Your task to perform on an android device: open chrome privacy settings Image 0: 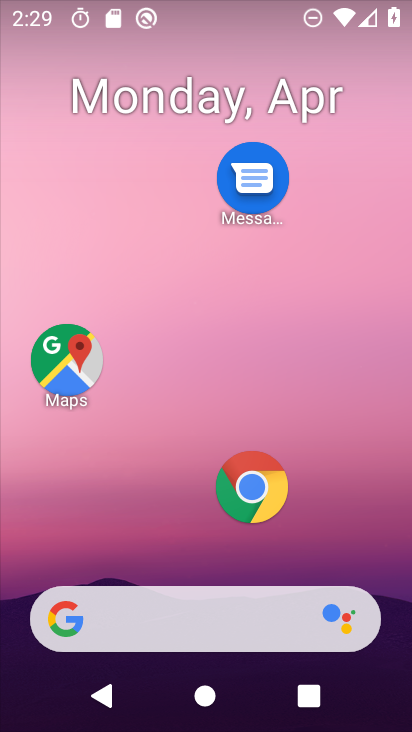
Step 0: drag from (272, 587) to (336, 14)
Your task to perform on an android device: open chrome privacy settings Image 1: 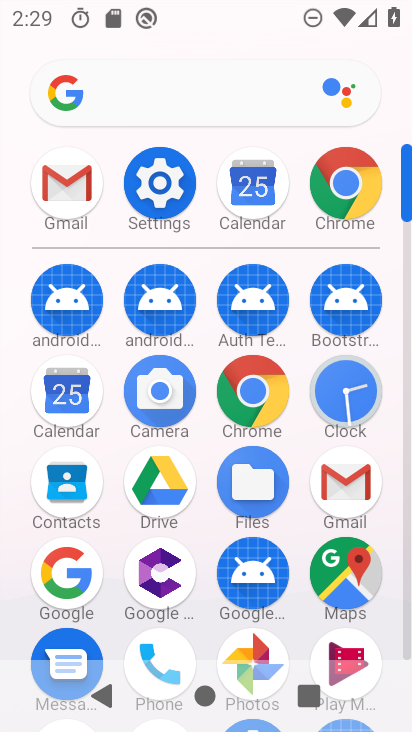
Step 1: drag from (291, 621) to (398, 105)
Your task to perform on an android device: open chrome privacy settings Image 2: 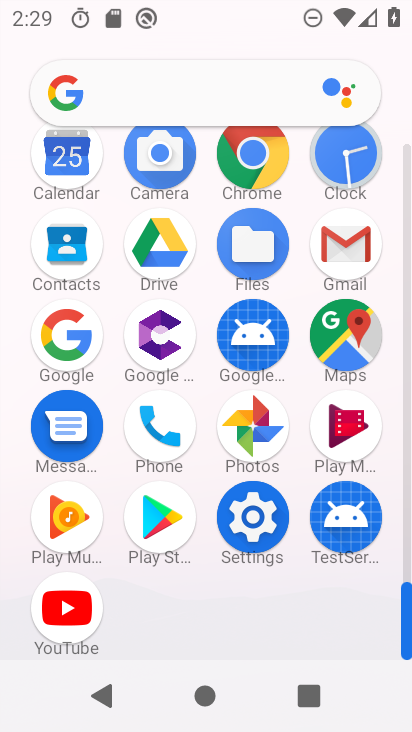
Step 2: click (260, 517)
Your task to perform on an android device: open chrome privacy settings Image 3: 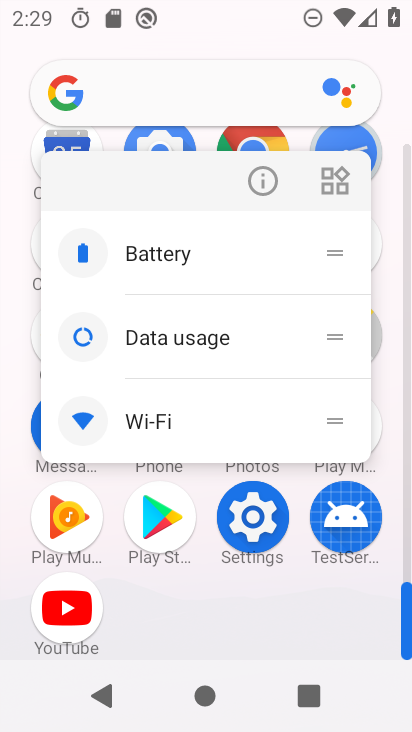
Step 3: click (257, 507)
Your task to perform on an android device: open chrome privacy settings Image 4: 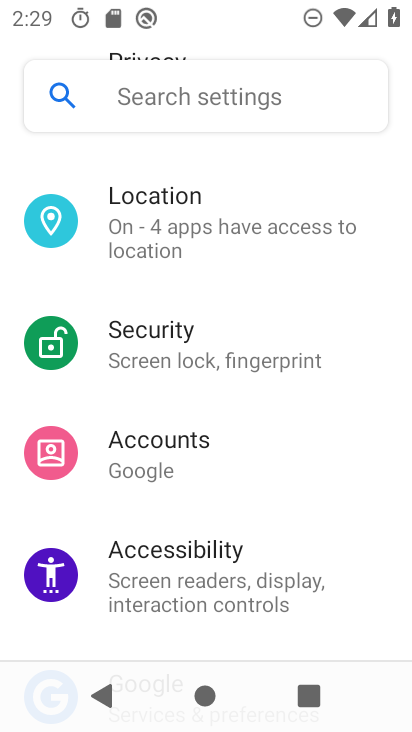
Step 4: drag from (233, 159) to (167, 581)
Your task to perform on an android device: open chrome privacy settings Image 5: 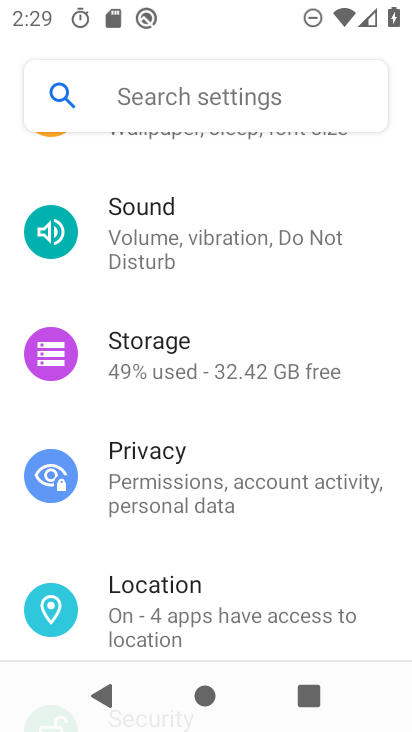
Step 5: click (200, 476)
Your task to perform on an android device: open chrome privacy settings Image 6: 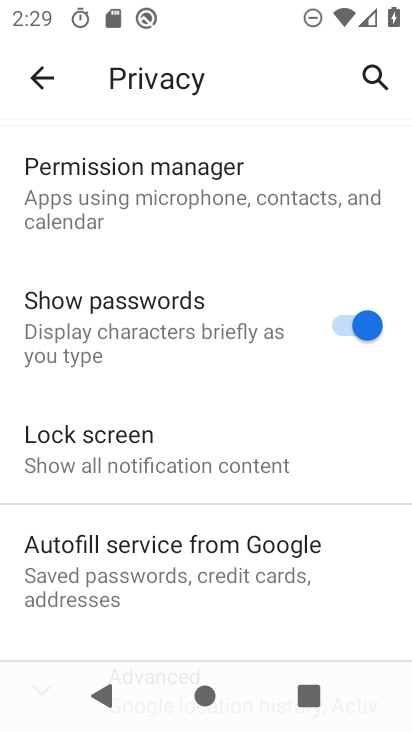
Step 6: task complete